Your task to perform on an android device: turn smart compose on in the gmail app Image 0: 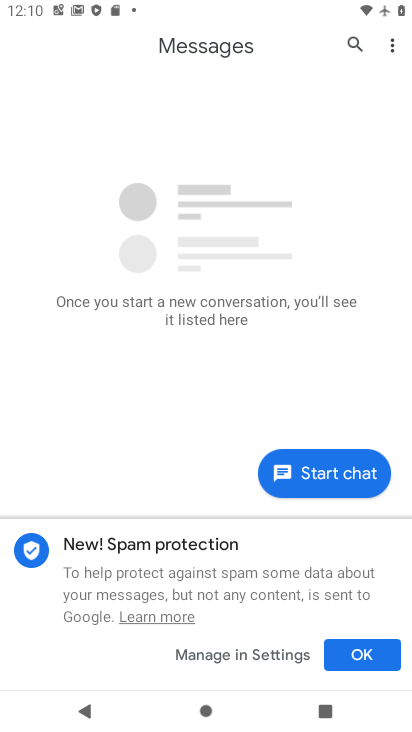
Step 0: press home button
Your task to perform on an android device: turn smart compose on in the gmail app Image 1: 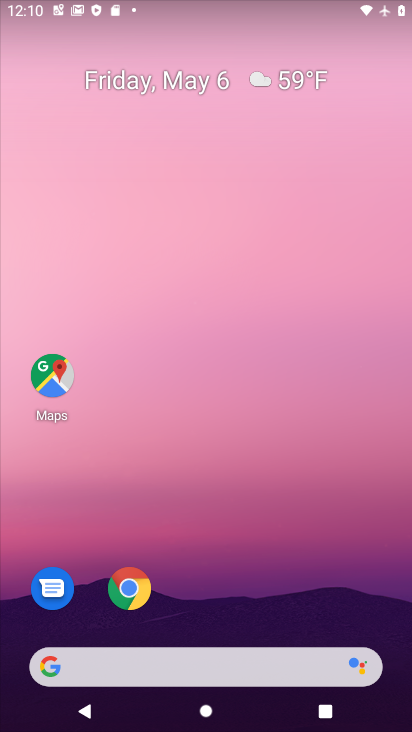
Step 1: drag from (182, 662) to (332, 178)
Your task to perform on an android device: turn smart compose on in the gmail app Image 2: 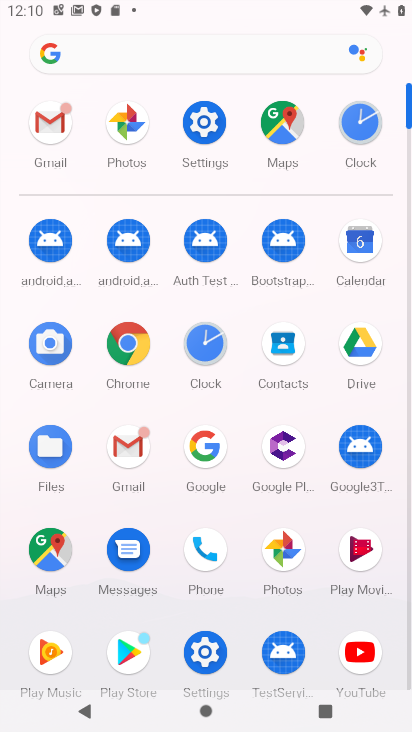
Step 2: click (49, 129)
Your task to perform on an android device: turn smart compose on in the gmail app Image 3: 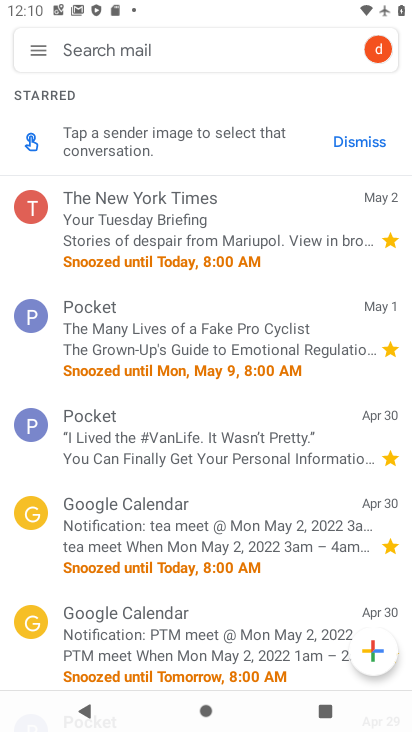
Step 3: click (38, 48)
Your task to perform on an android device: turn smart compose on in the gmail app Image 4: 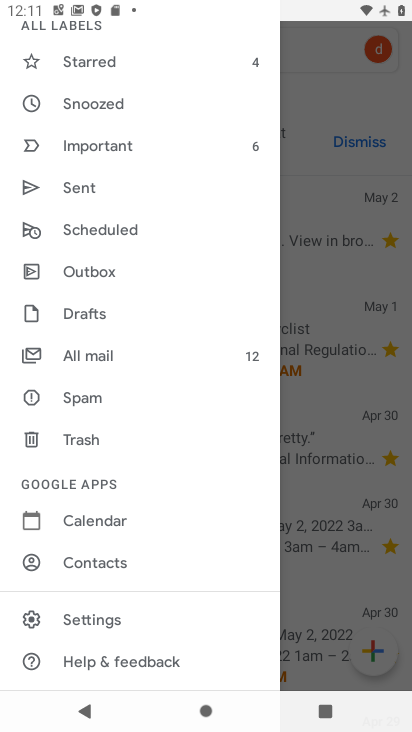
Step 4: click (121, 620)
Your task to perform on an android device: turn smart compose on in the gmail app Image 5: 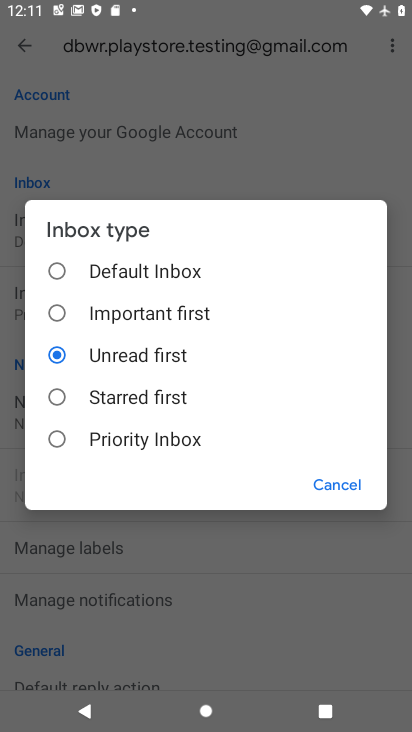
Step 5: click (342, 491)
Your task to perform on an android device: turn smart compose on in the gmail app Image 6: 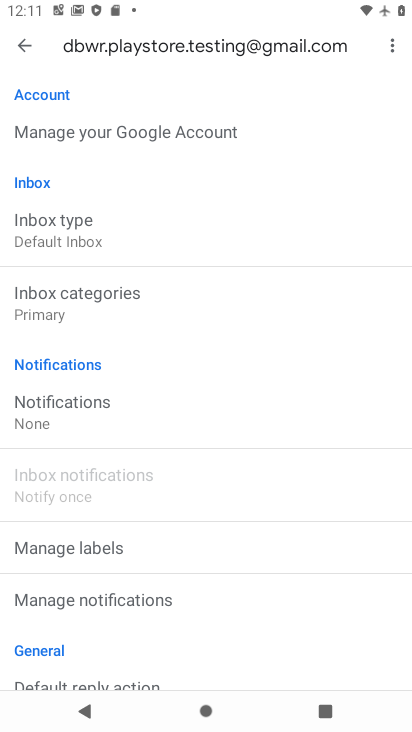
Step 6: task complete